Your task to perform on an android device: Open Chrome and go to the settings page Image 0: 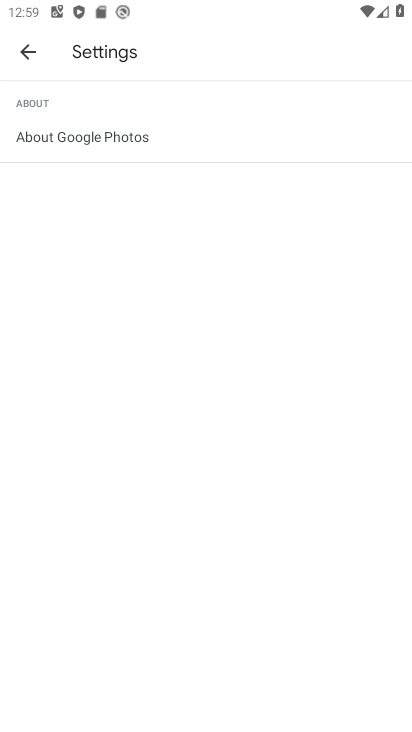
Step 0: press home button
Your task to perform on an android device: Open Chrome and go to the settings page Image 1: 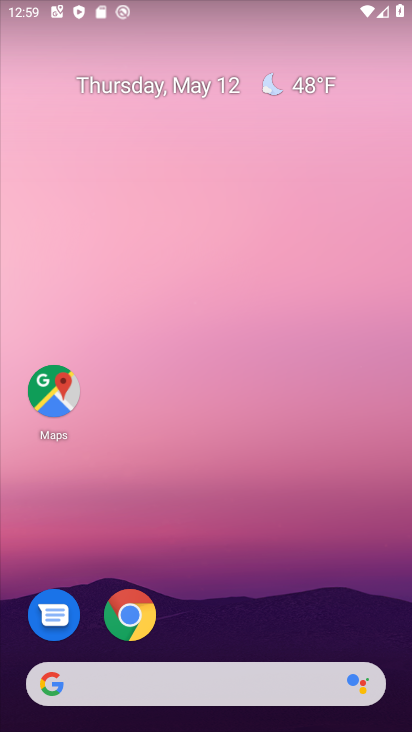
Step 1: drag from (317, 688) to (372, 3)
Your task to perform on an android device: Open Chrome and go to the settings page Image 2: 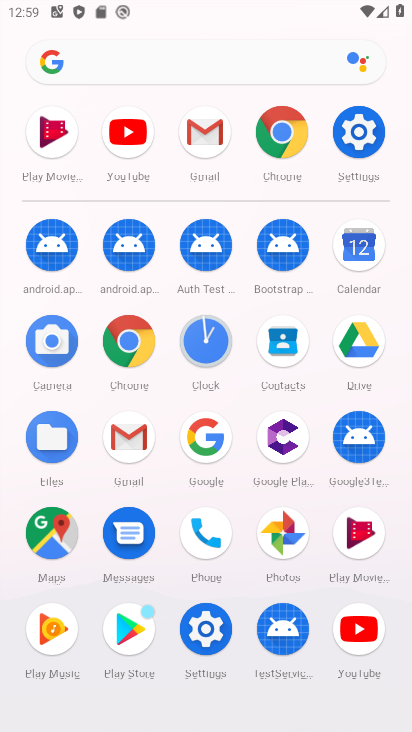
Step 2: click (135, 330)
Your task to perform on an android device: Open Chrome and go to the settings page Image 3: 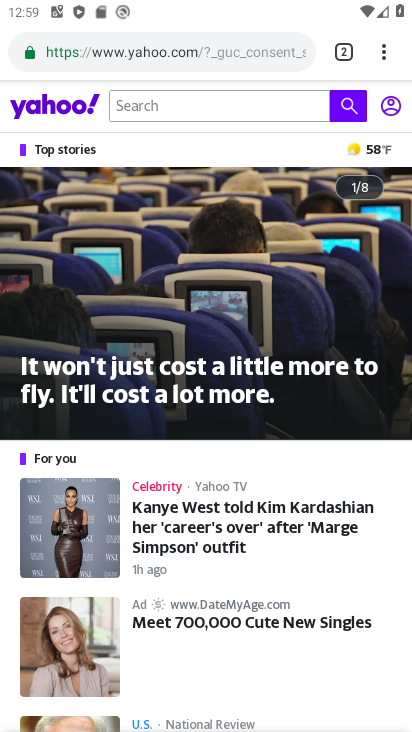
Step 3: task complete